Your task to perform on an android device: Open Maps and search for coffee Image 0: 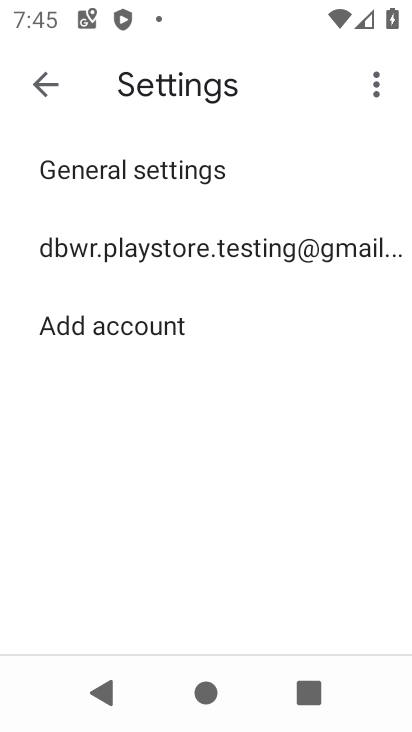
Step 0: press home button
Your task to perform on an android device: Open Maps and search for coffee Image 1: 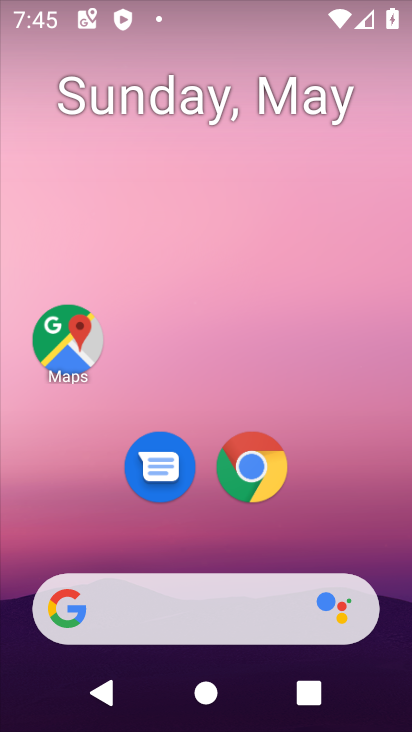
Step 1: click (68, 347)
Your task to perform on an android device: Open Maps and search for coffee Image 2: 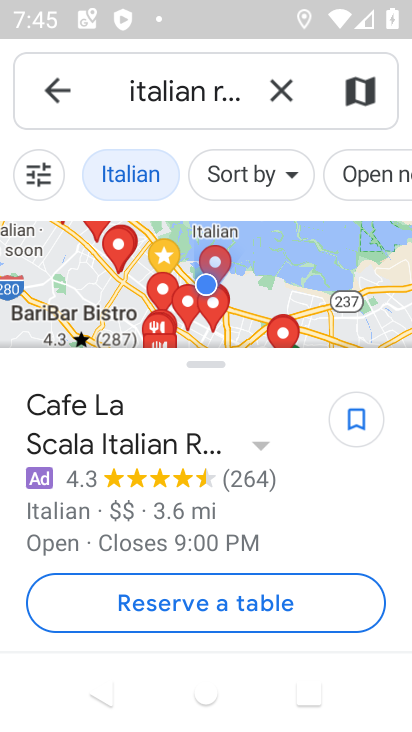
Step 2: click (274, 100)
Your task to perform on an android device: Open Maps and search for coffee Image 3: 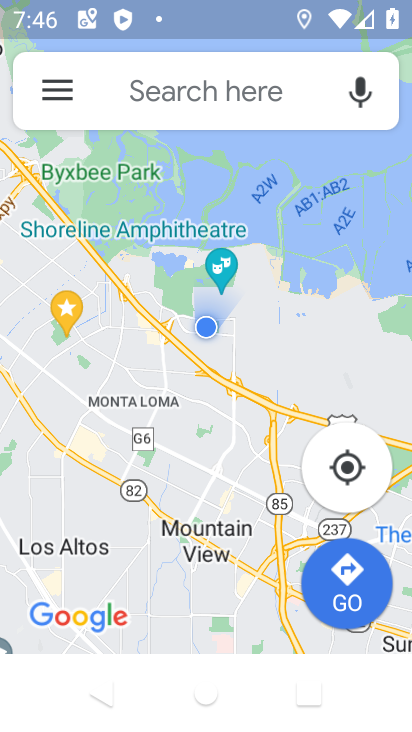
Step 3: click (139, 94)
Your task to perform on an android device: Open Maps and search for coffee Image 4: 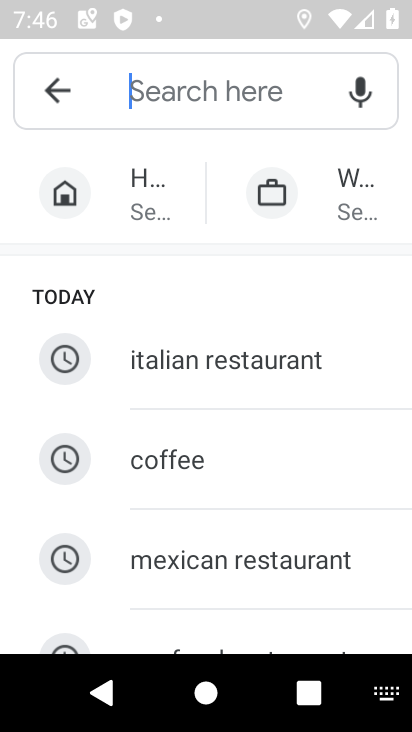
Step 4: type "coffee"
Your task to perform on an android device: Open Maps and search for coffee Image 5: 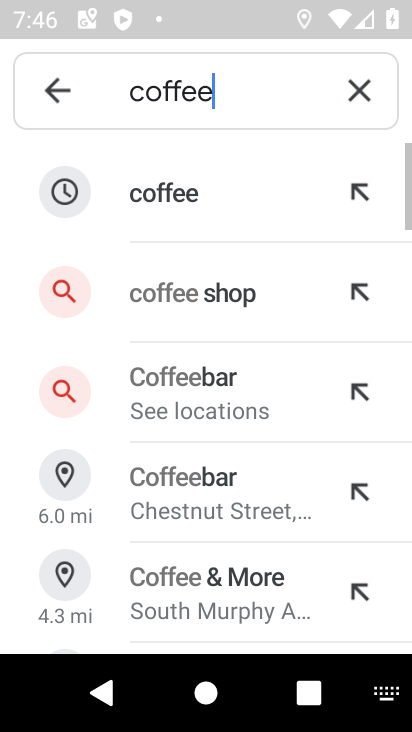
Step 5: click (173, 198)
Your task to perform on an android device: Open Maps and search for coffee Image 6: 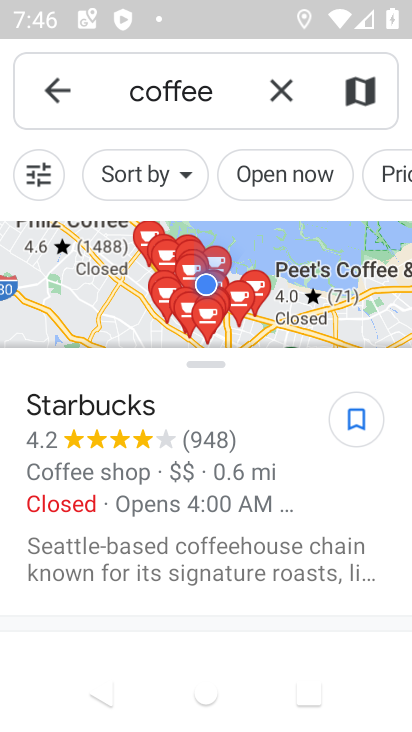
Step 6: task complete